Your task to perform on an android device: Empty the shopping cart on target.com. Add "razer kraken" to the cart on target.com, then select checkout. Image 0: 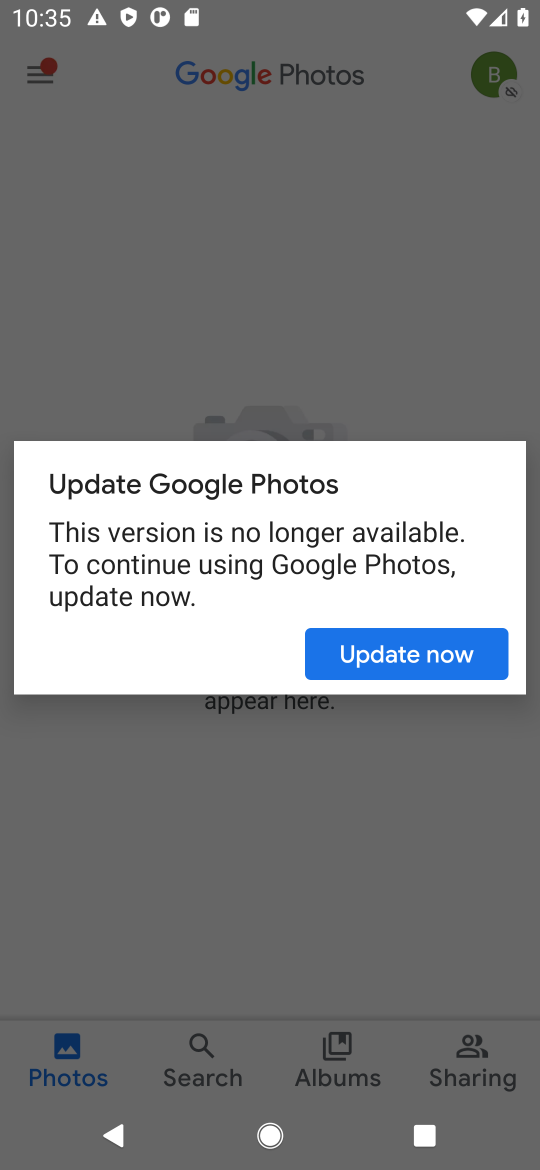
Step 0: press home button
Your task to perform on an android device: Empty the shopping cart on target.com. Add "razer kraken" to the cart on target.com, then select checkout. Image 1: 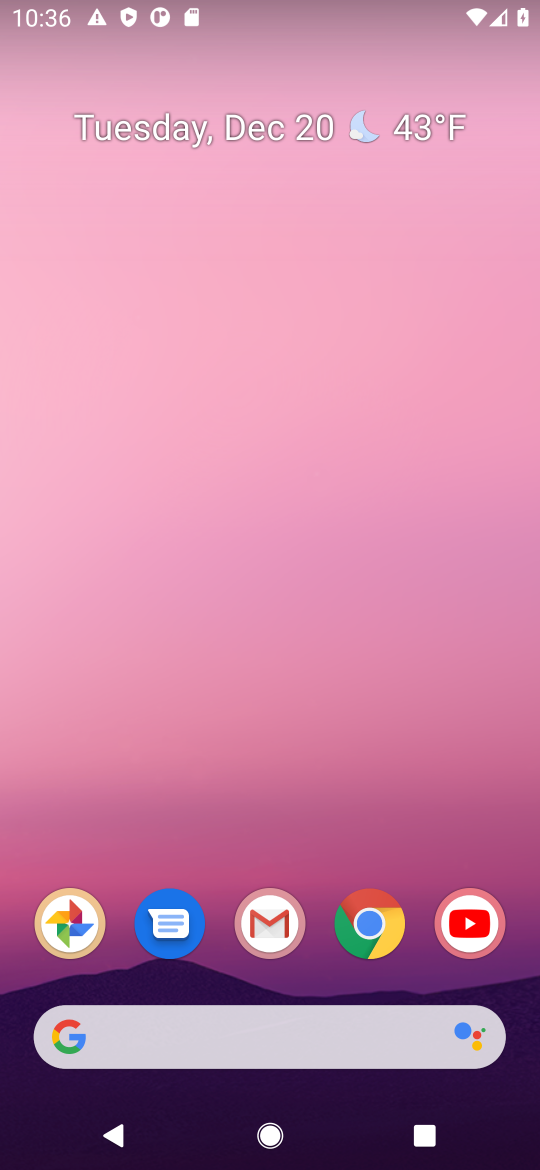
Step 1: click (370, 928)
Your task to perform on an android device: Empty the shopping cart on target.com. Add "razer kraken" to the cart on target.com, then select checkout. Image 2: 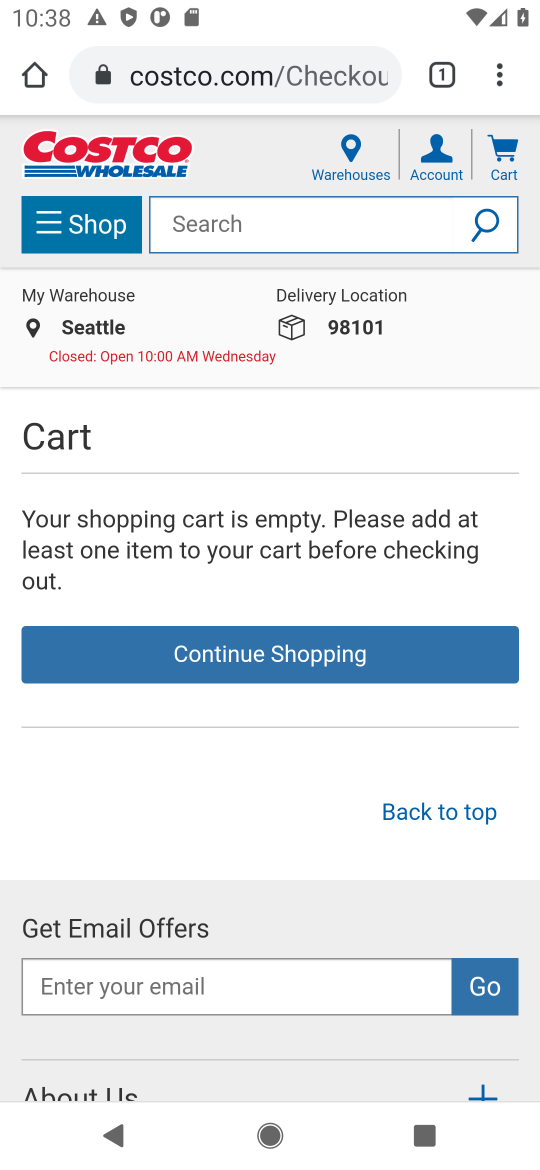
Step 2: click (242, 82)
Your task to perform on an android device: Empty the shopping cart on target.com. Add "razer kraken" to the cart on target.com, then select checkout. Image 3: 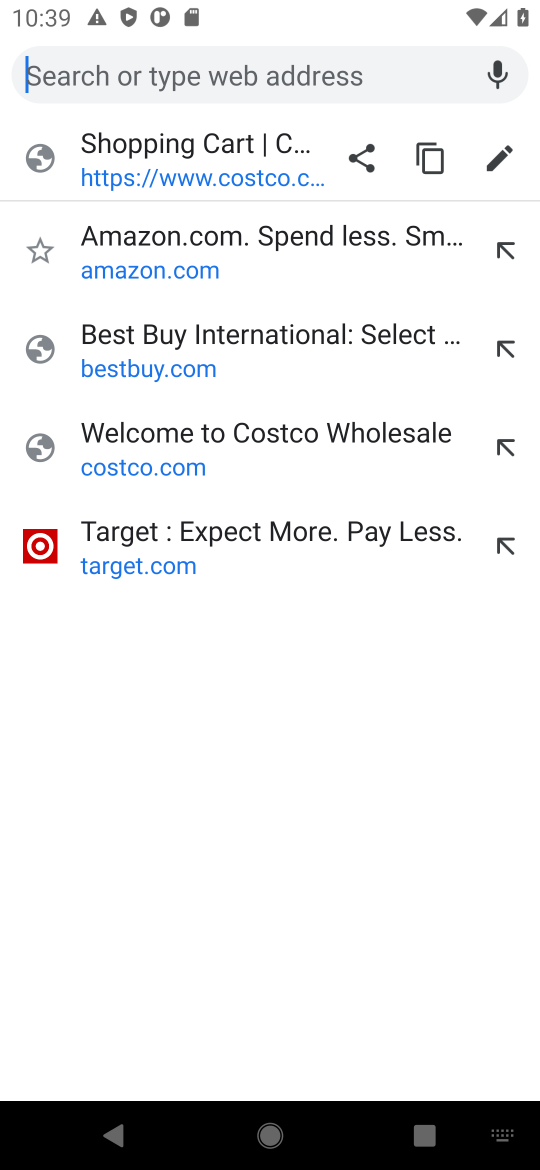
Step 3: click (323, 567)
Your task to perform on an android device: Empty the shopping cart on target.com. Add "razer kraken" to the cart on target.com, then select checkout. Image 4: 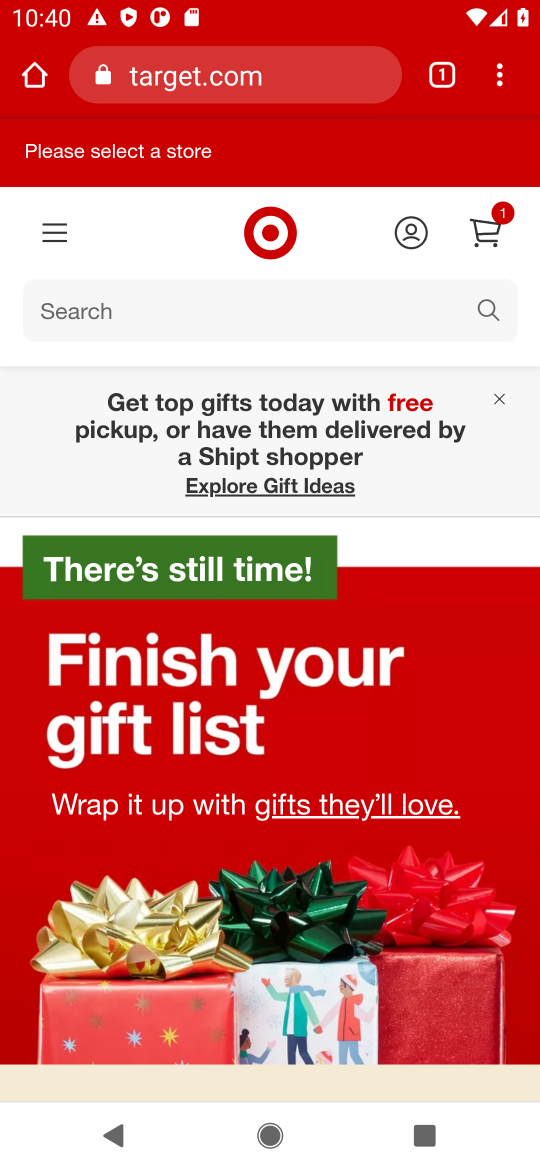
Step 4: task complete